Your task to perform on an android device: add a contact Image 0: 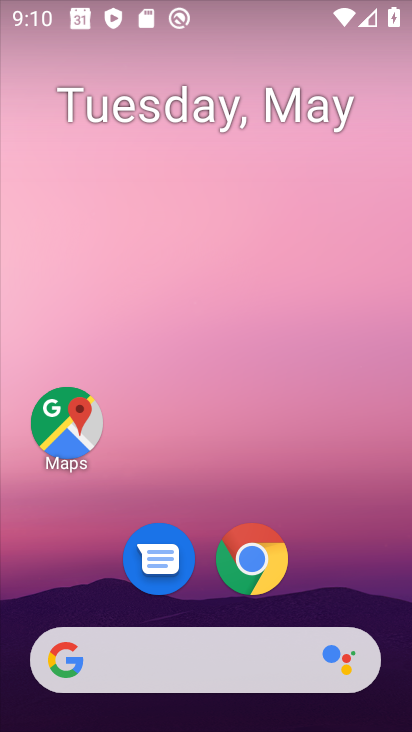
Step 0: drag from (200, 277) to (130, 10)
Your task to perform on an android device: add a contact Image 1: 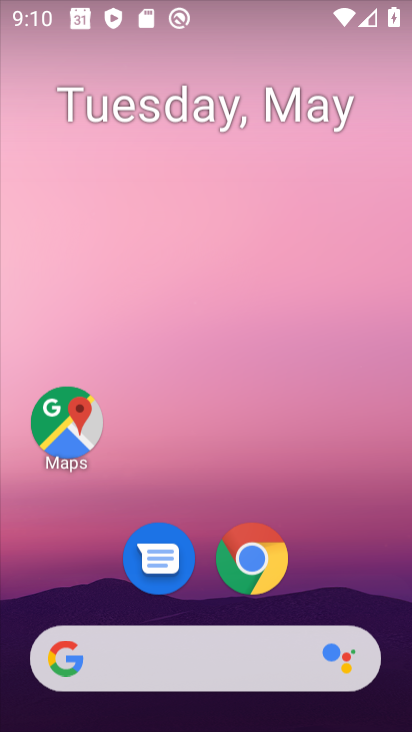
Step 1: drag from (244, 287) to (163, 5)
Your task to perform on an android device: add a contact Image 2: 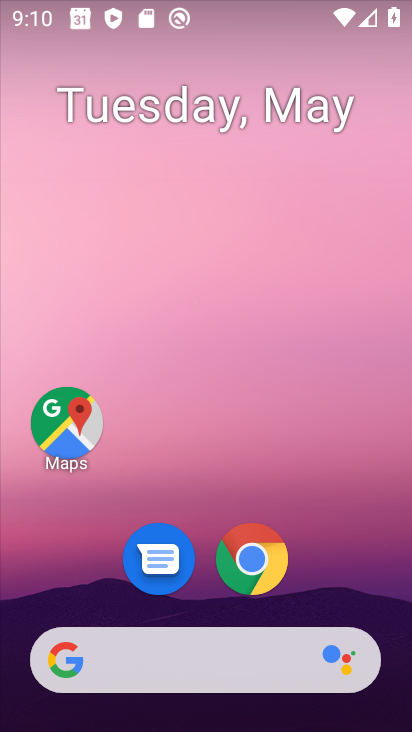
Step 2: drag from (323, 555) to (146, 17)
Your task to perform on an android device: add a contact Image 3: 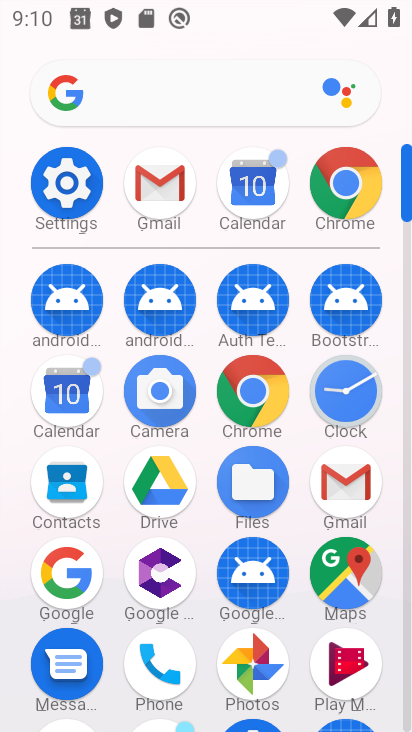
Step 3: click (69, 479)
Your task to perform on an android device: add a contact Image 4: 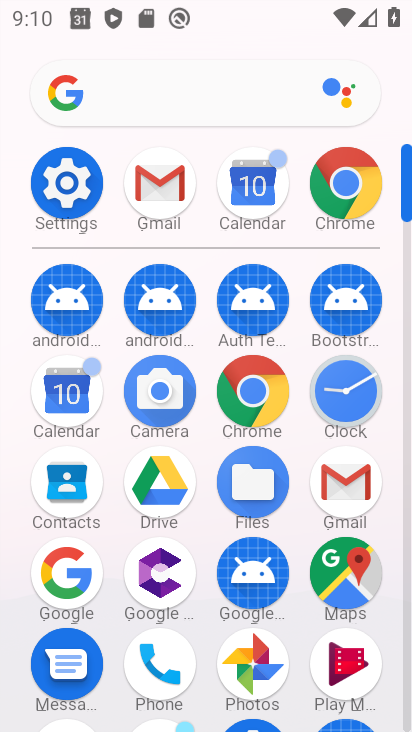
Step 4: click (69, 482)
Your task to perform on an android device: add a contact Image 5: 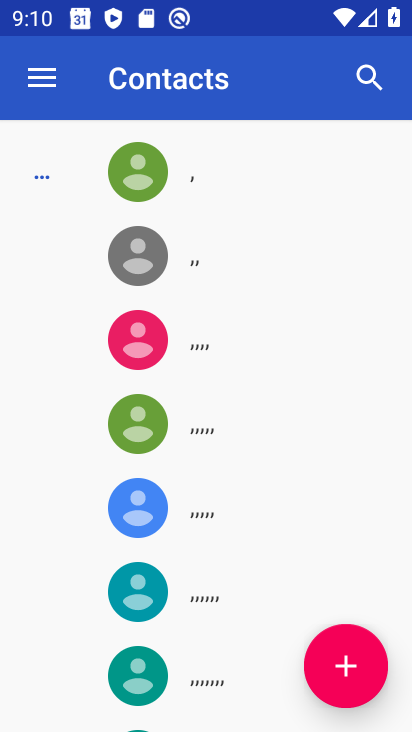
Step 5: click (347, 676)
Your task to perform on an android device: add a contact Image 6: 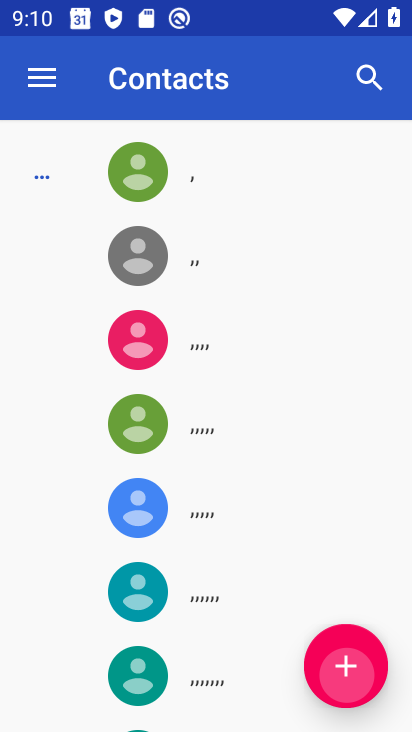
Step 6: click (343, 684)
Your task to perform on an android device: add a contact Image 7: 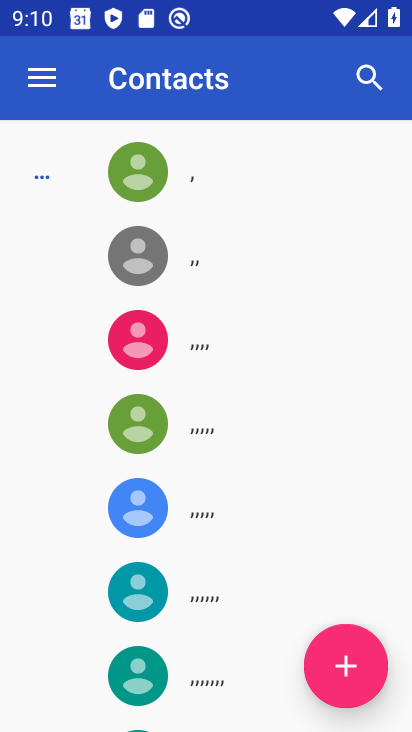
Step 7: click (343, 684)
Your task to perform on an android device: add a contact Image 8: 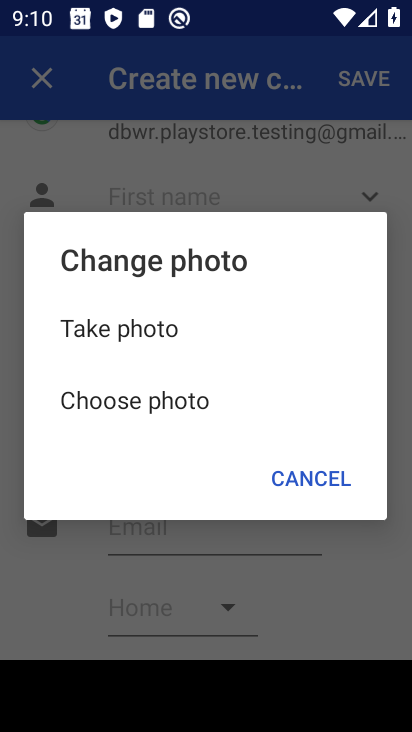
Step 8: click (144, 189)
Your task to perform on an android device: add a contact Image 9: 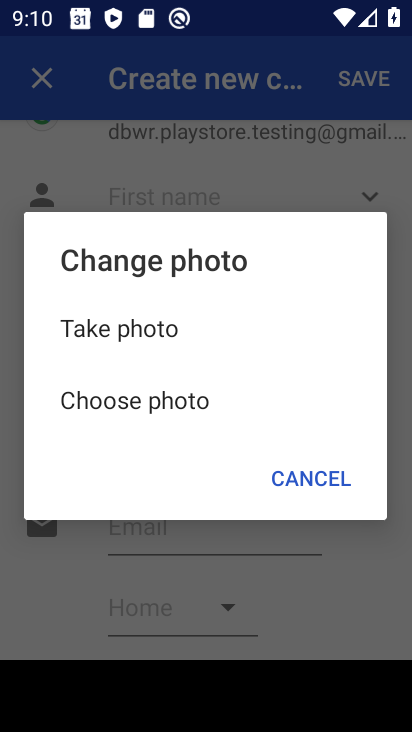
Step 9: click (309, 484)
Your task to perform on an android device: add a contact Image 10: 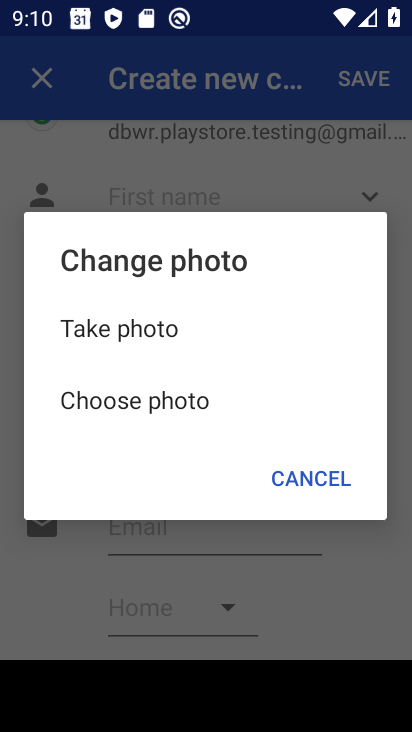
Step 10: click (309, 483)
Your task to perform on an android device: add a contact Image 11: 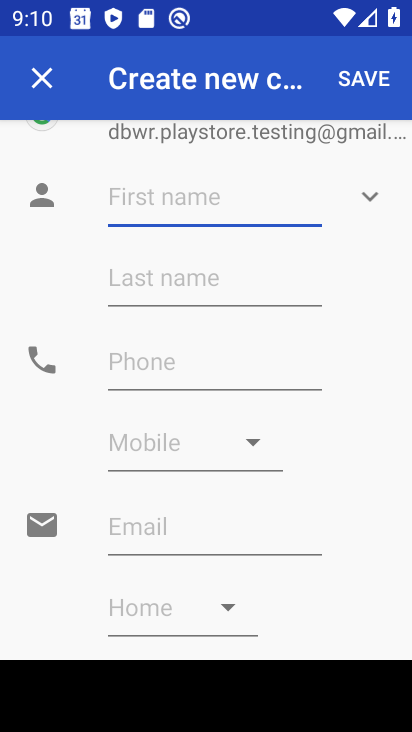
Step 11: click (309, 483)
Your task to perform on an android device: add a contact Image 12: 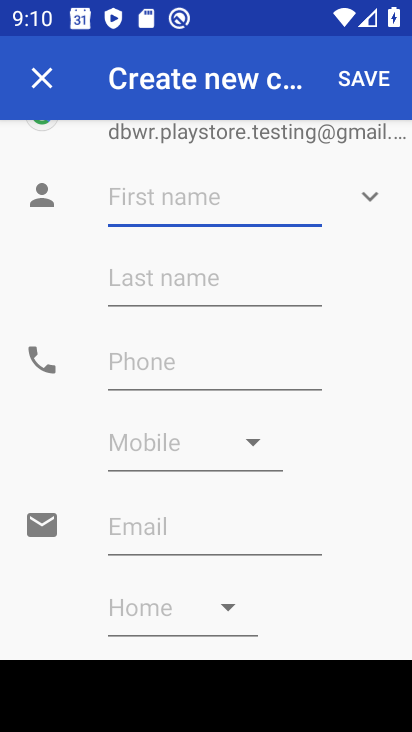
Step 12: type "huguhuhuh"
Your task to perform on an android device: add a contact Image 13: 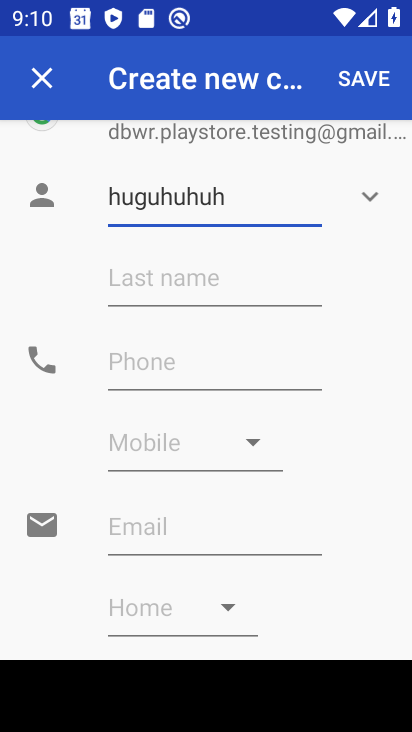
Step 13: click (150, 454)
Your task to perform on an android device: add a contact Image 14: 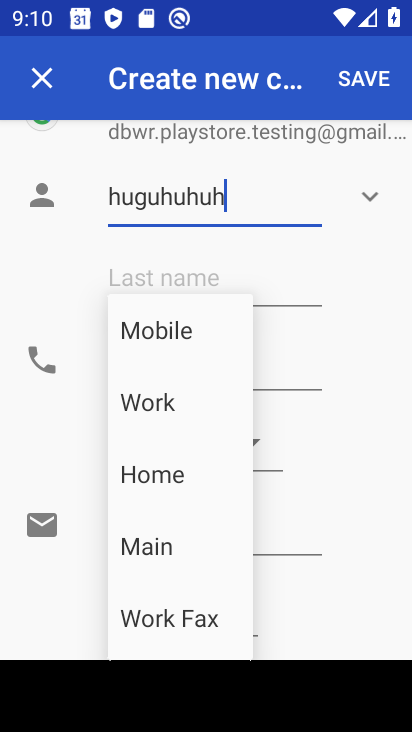
Step 14: click (353, 386)
Your task to perform on an android device: add a contact Image 15: 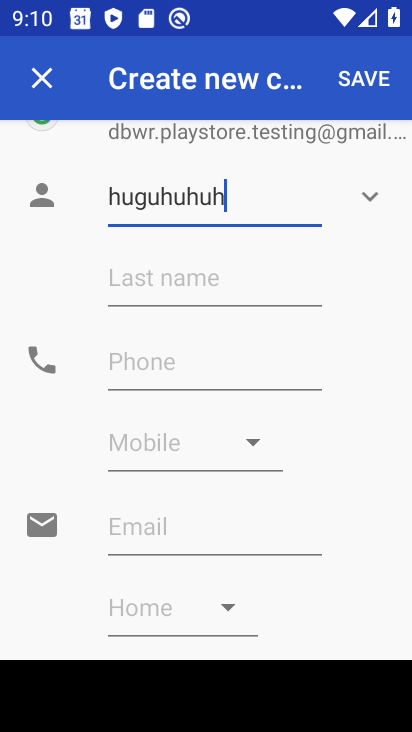
Step 15: click (324, 333)
Your task to perform on an android device: add a contact Image 16: 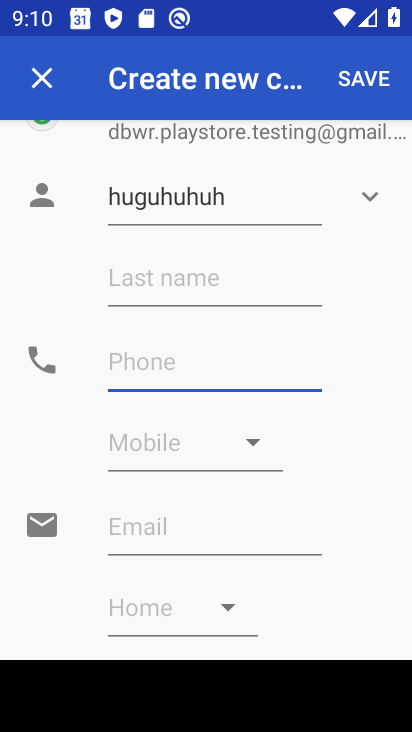
Step 16: click (168, 368)
Your task to perform on an android device: add a contact Image 17: 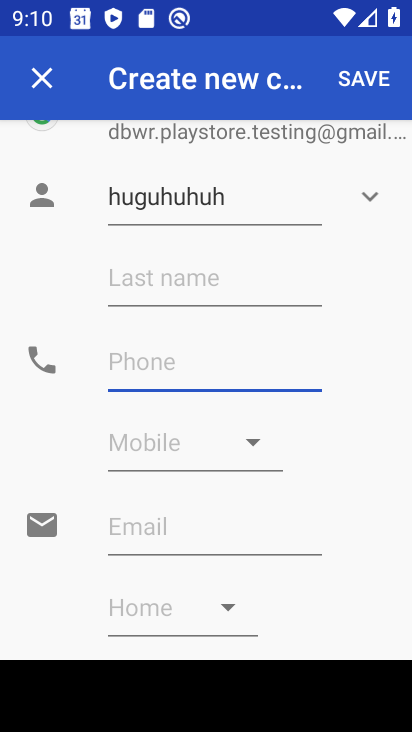
Step 17: click (168, 368)
Your task to perform on an android device: add a contact Image 18: 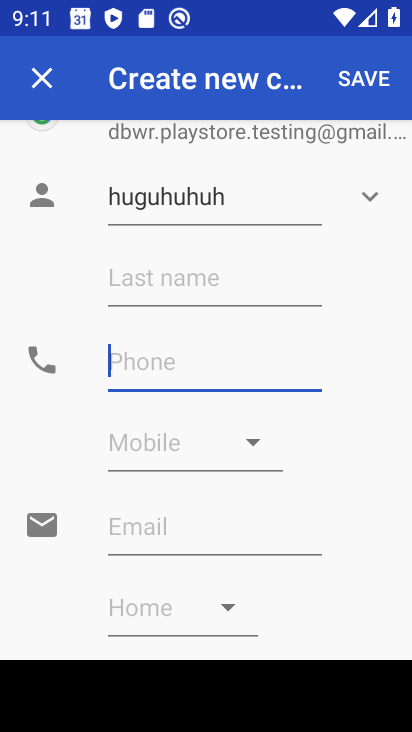
Step 18: type "97854656744"
Your task to perform on an android device: add a contact Image 19: 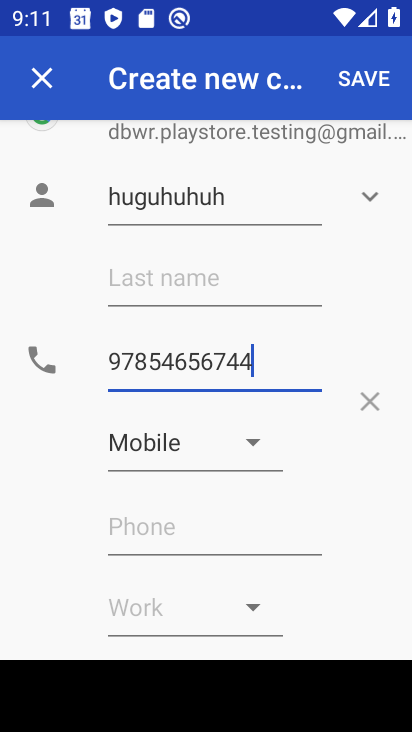
Step 19: task complete